Your task to perform on an android device: Open sound settings Image 0: 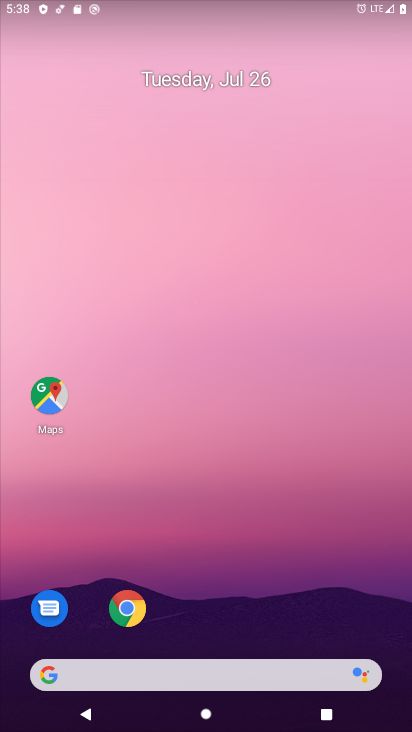
Step 0: drag from (347, 634) to (291, 68)
Your task to perform on an android device: Open sound settings Image 1: 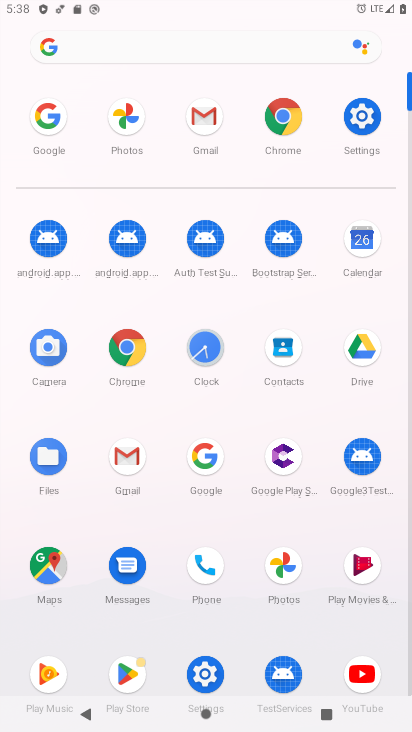
Step 1: click (212, 667)
Your task to perform on an android device: Open sound settings Image 2: 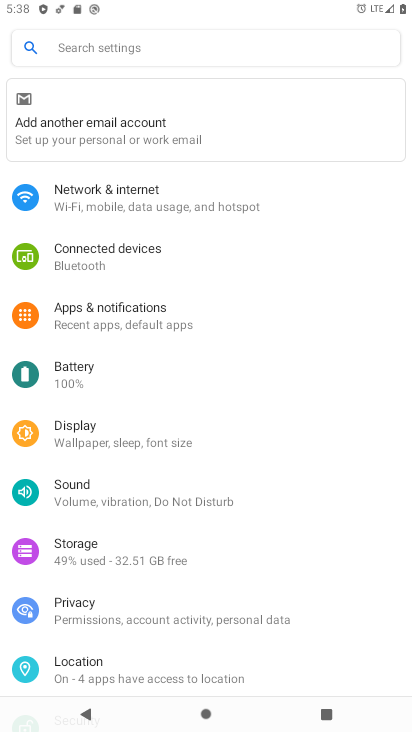
Step 2: click (68, 489)
Your task to perform on an android device: Open sound settings Image 3: 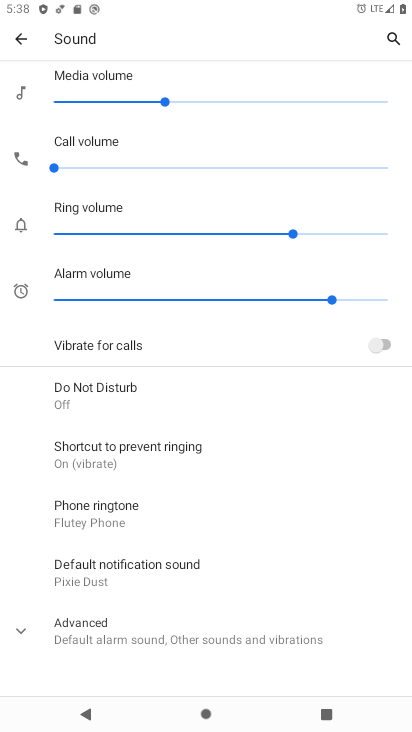
Step 3: task complete